Your task to perform on an android device: open chrome and create a bookmark for the current page Image 0: 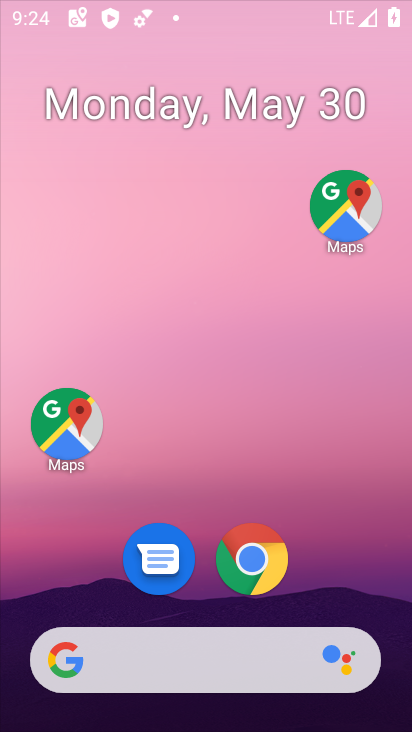
Step 0: drag from (325, 528) to (294, 185)
Your task to perform on an android device: open chrome and create a bookmark for the current page Image 1: 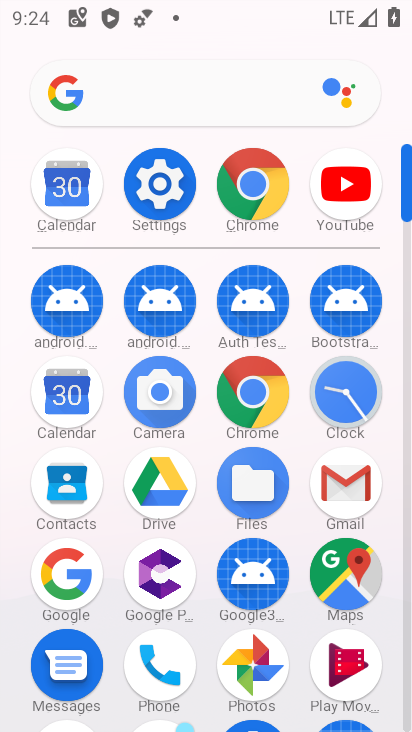
Step 1: click (162, 187)
Your task to perform on an android device: open chrome and create a bookmark for the current page Image 2: 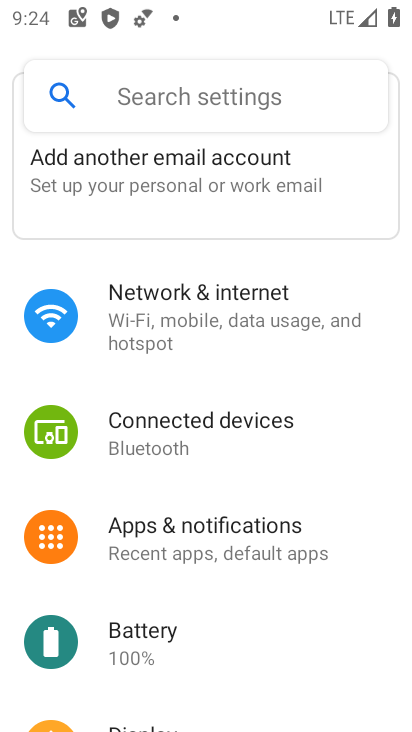
Step 2: press home button
Your task to perform on an android device: open chrome and create a bookmark for the current page Image 3: 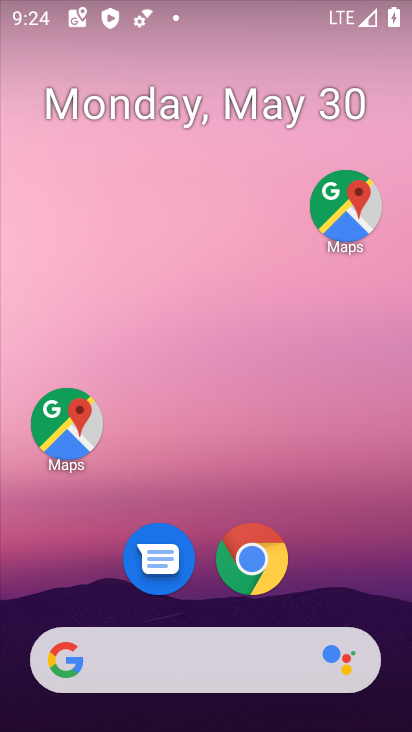
Step 3: click (253, 559)
Your task to perform on an android device: open chrome and create a bookmark for the current page Image 4: 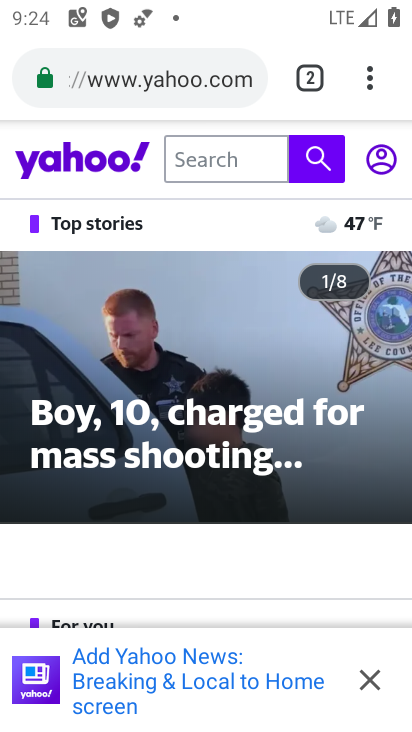
Step 4: task complete